Your task to perform on an android device: Go to sound settings Image 0: 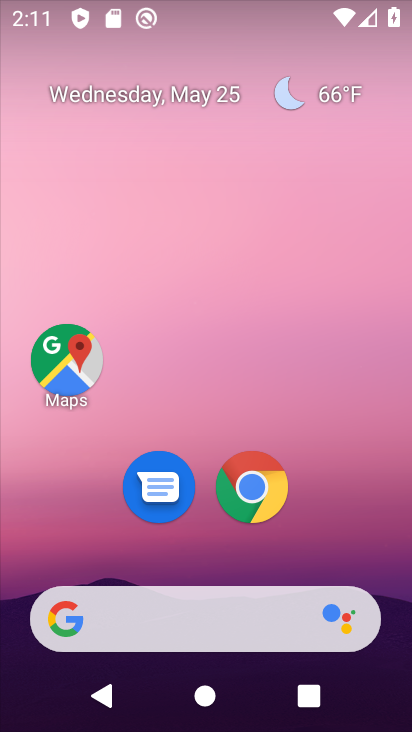
Step 0: drag from (277, 556) to (287, 1)
Your task to perform on an android device: Go to sound settings Image 1: 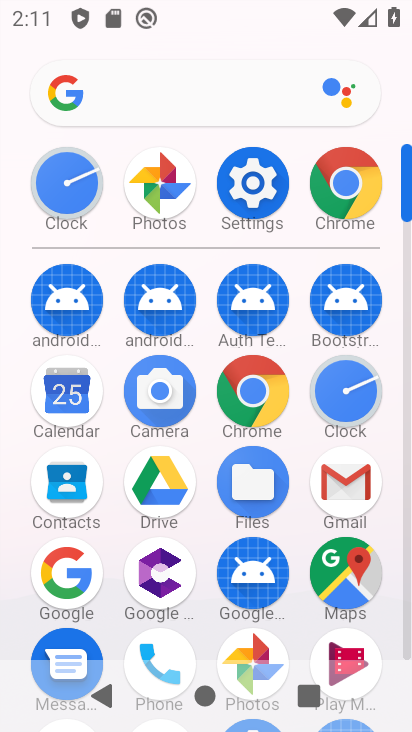
Step 1: click (255, 182)
Your task to perform on an android device: Go to sound settings Image 2: 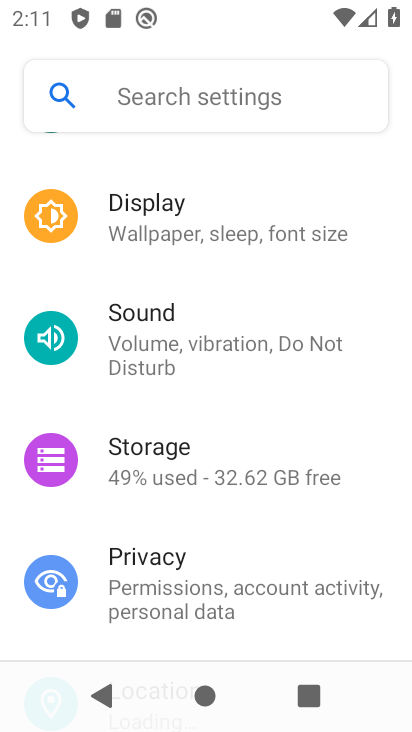
Step 2: click (157, 355)
Your task to perform on an android device: Go to sound settings Image 3: 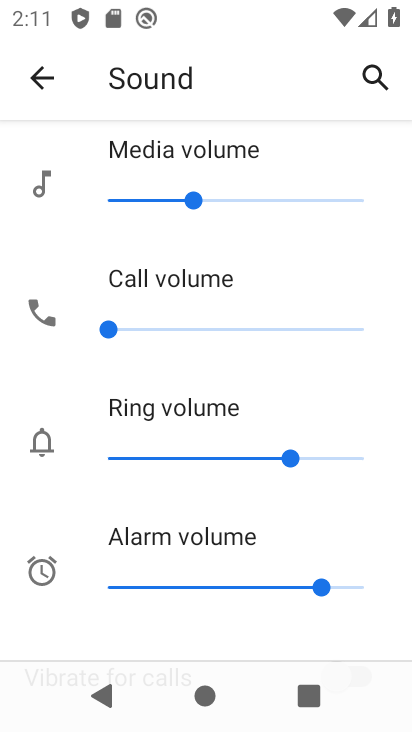
Step 3: task complete